Your task to perform on an android device: Empty the shopping cart on walmart.com. Image 0: 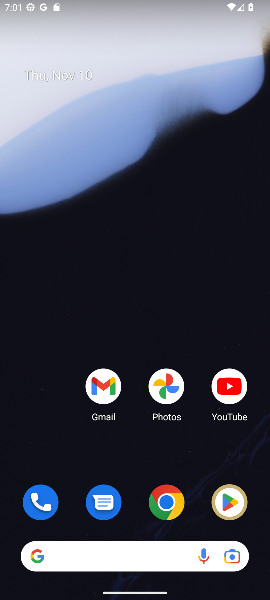
Step 0: click (119, 547)
Your task to perform on an android device: Empty the shopping cart on walmart.com. Image 1: 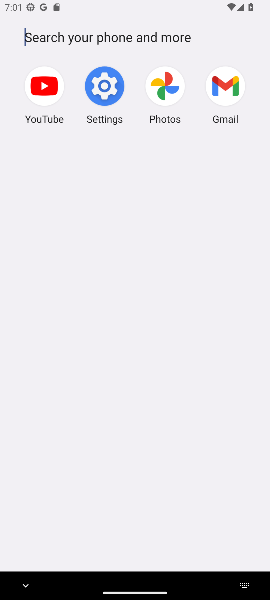
Step 1: press home button
Your task to perform on an android device: Empty the shopping cart on walmart.com. Image 2: 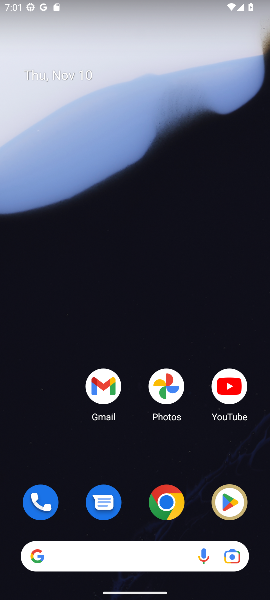
Step 2: drag from (134, 410) to (146, 214)
Your task to perform on an android device: Empty the shopping cart on walmart.com. Image 3: 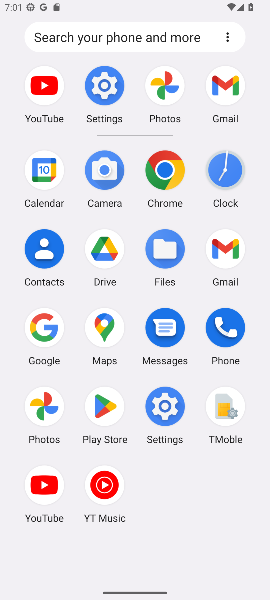
Step 3: click (40, 324)
Your task to perform on an android device: Empty the shopping cart on walmart.com. Image 4: 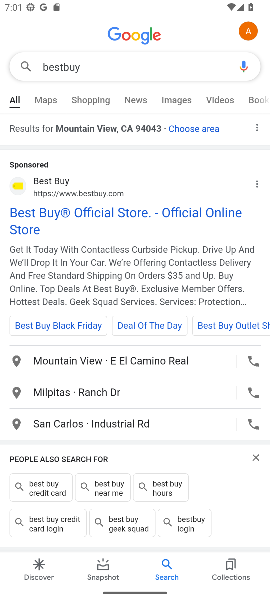
Step 4: click (48, 188)
Your task to perform on an android device: Empty the shopping cart on walmart.com. Image 5: 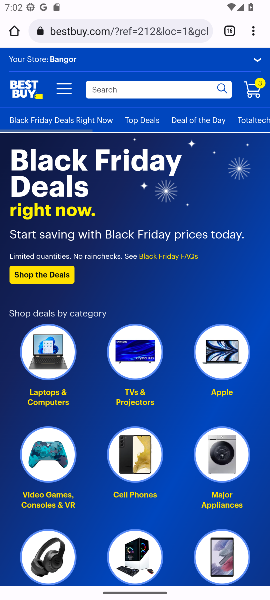
Step 5: click (130, 21)
Your task to perform on an android device: Empty the shopping cart on walmart.com. Image 6: 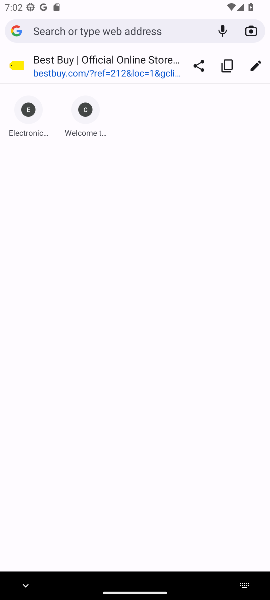
Step 6: type "walmart.com."
Your task to perform on an android device: Empty the shopping cart on walmart.com. Image 7: 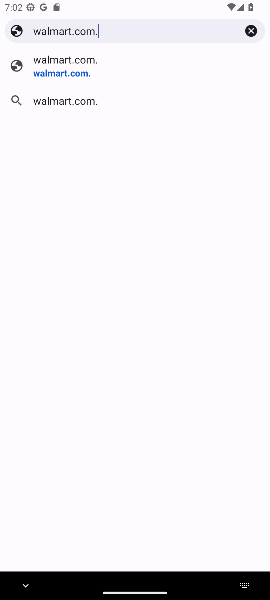
Step 7: click (88, 63)
Your task to perform on an android device: Empty the shopping cart on walmart.com. Image 8: 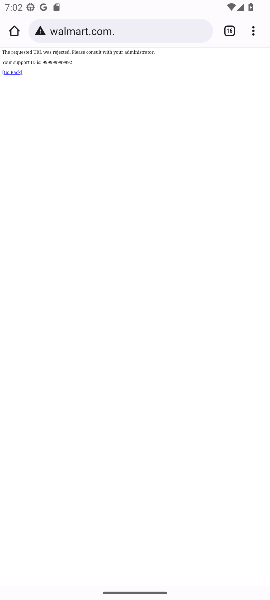
Step 8: task complete